Your task to perform on an android device: Open Chrome and go to the settings page Image 0: 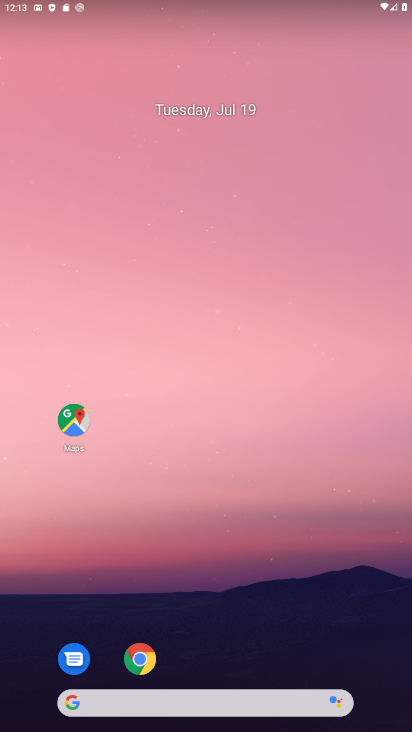
Step 0: click (140, 656)
Your task to perform on an android device: Open Chrome and go to the settings page Image 1: 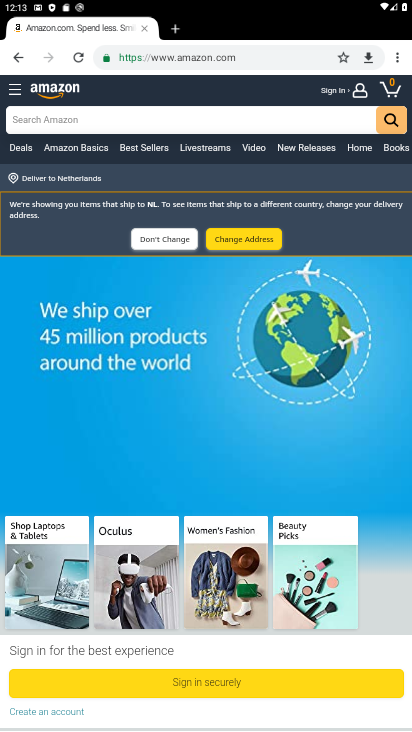
Step 1: task complete